Your task to perform on an android device: Go to Wikipedia Image 0: 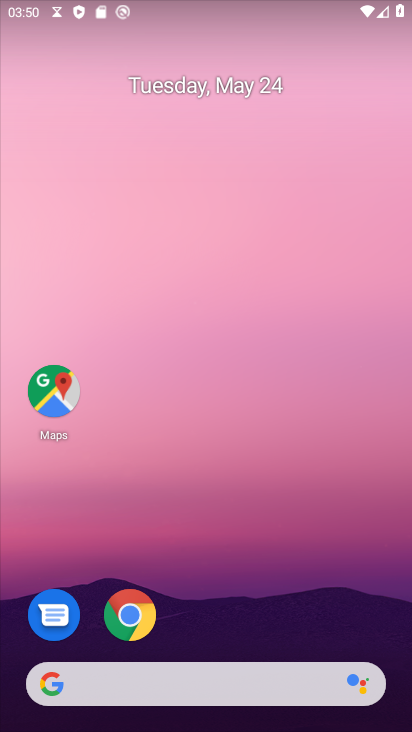
Step 0: drag from (260, 616) to (176, 69)
Your task to perform on an android device: Go to Wikipedia Image 1: 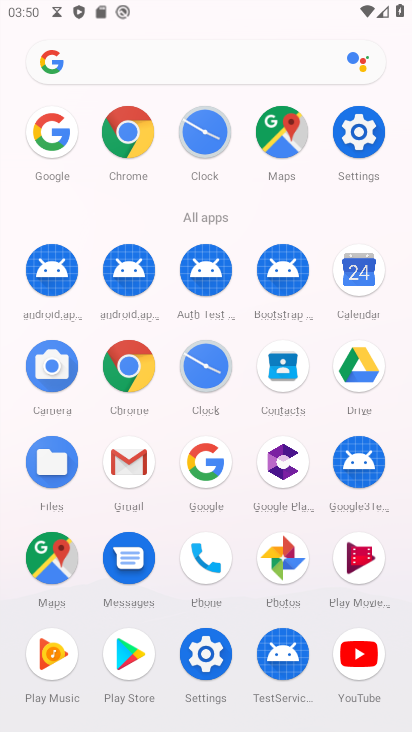
Step 1: click (129, 360)
Your task to perform on an android device: Go to Wikipedia Image 2: 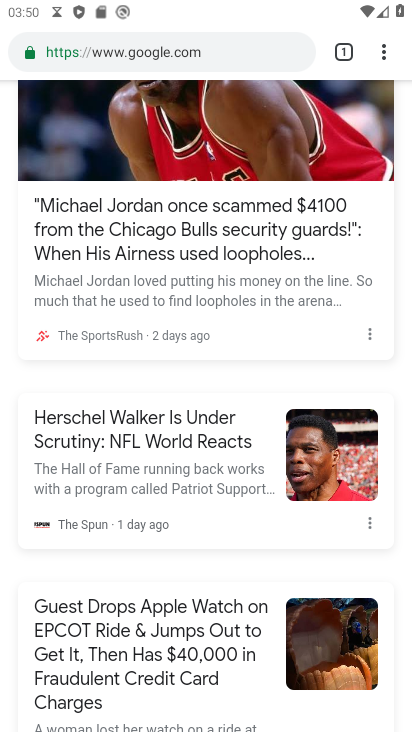
Step 2: drag from (226, 173) to (211, 545)
Your task to perform on an android device: Go to Wikipedia Image 3: 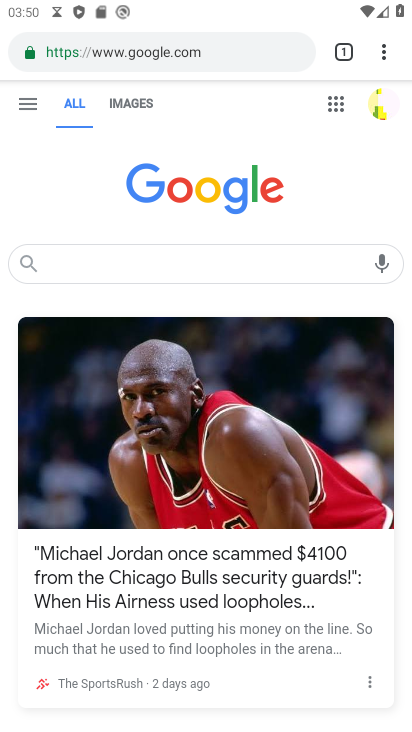
Step 3: click (162, 47)
Your task to perform on an android device: Go to Wikipedia Image 4: 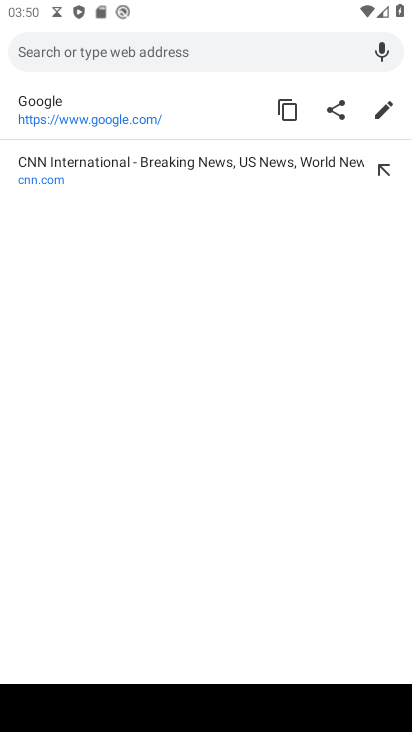
Step 4: type "Wikipedia"
Your task to perform on an android device: Go to Wikipedia Image 5: 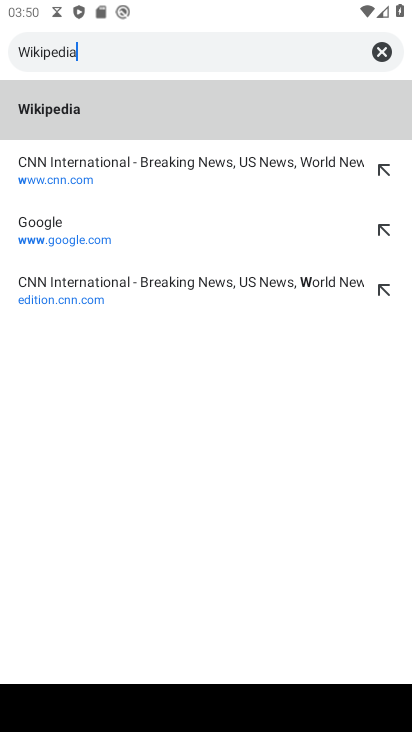
Step 5: type ""
Your task to perform on an android device: Go to Wikipedia Image 6: 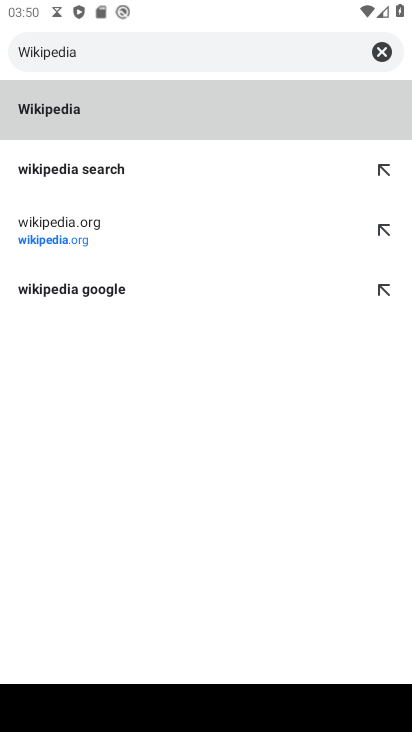
Step 6: click (47, 237)
Your task to perform on an android device: Go to Wikipedia Image 7: 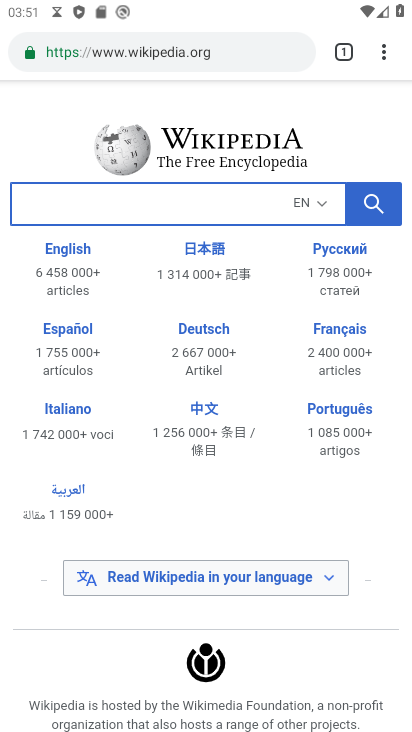
Step 7: task complete